Your task to perform on an android device: turn pop-ups on in chrome Image 0: 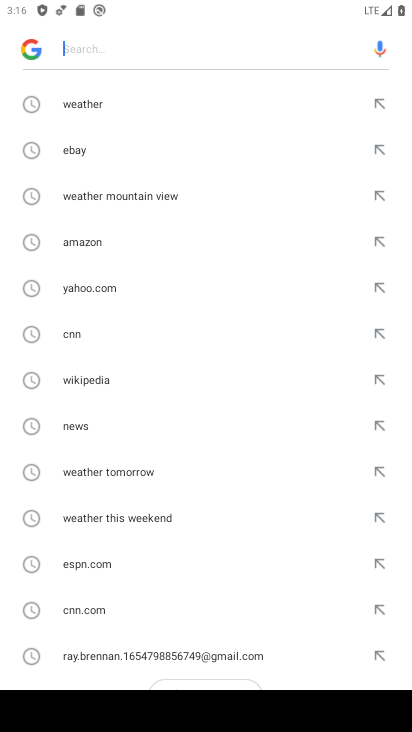
Step 0: press home button
Your task to perform on an android device: turn pop-ups on in chrome Image 1: 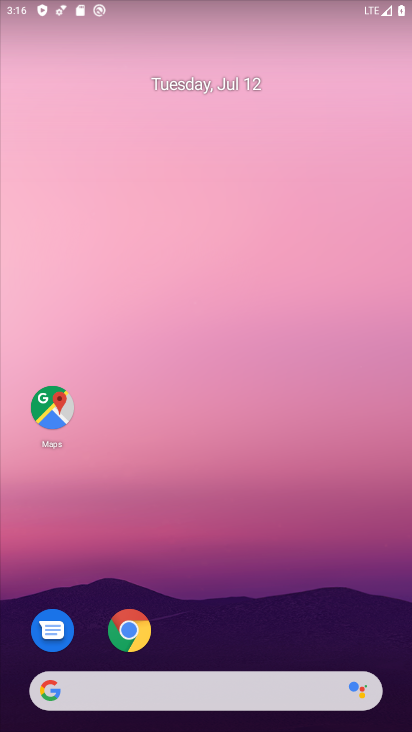
Step 1: drag from (185, 593) to (255, 8)
Your task to perform on an android device: turn pop-ups on in chrome Image 2: 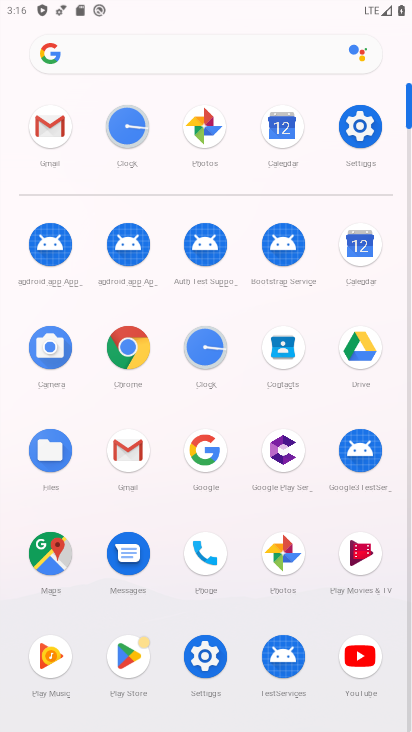
Step 2: click (122, 346)
Your task to perform on an android device: turn pop-ups on in chrome Image 3: 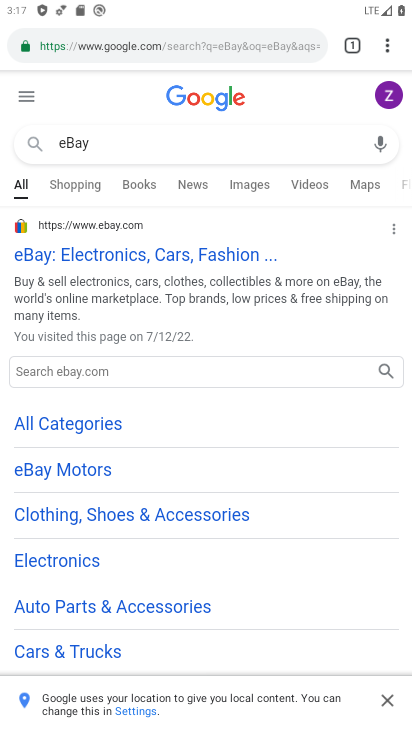
Step 3: click (389, 46)
Your task to perform on an android device: turn pop-ups on in chrome Image 4: 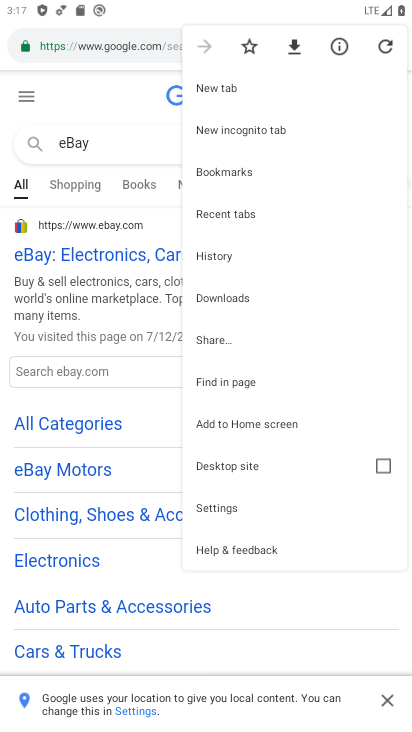
Step 4: click (220, 512)
Your task to perform on an android device: turn pop-ups on in chrome Image 5: 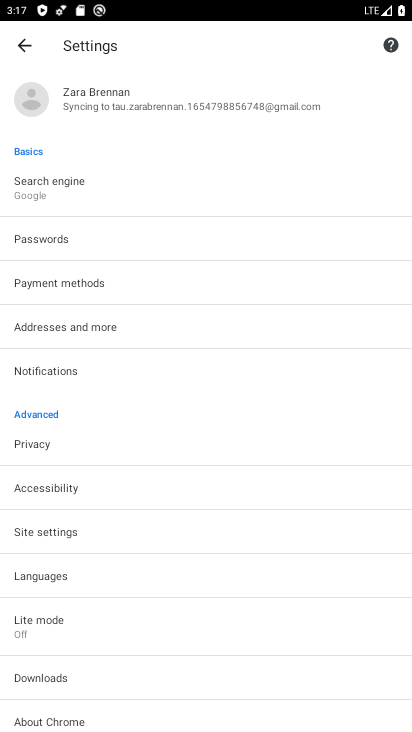
Step 5: click (65, 534)
Your task to perform on an android device: turn pop-ups on in chrome Image 6: 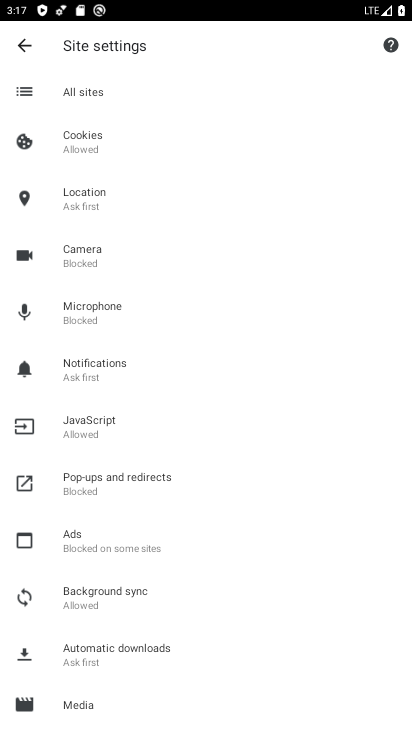
Step 6: click (117, 485)
Your task to perform on an android device: turn pop-ups on in chrome Image 7: 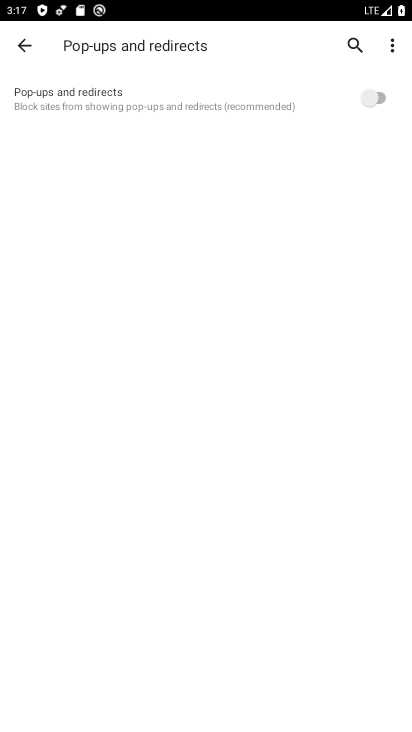
Step 7: drag from (348, 90) to (265, 195)
Your task to perform on an android device: turn pop-ups on in chrome Image 8: 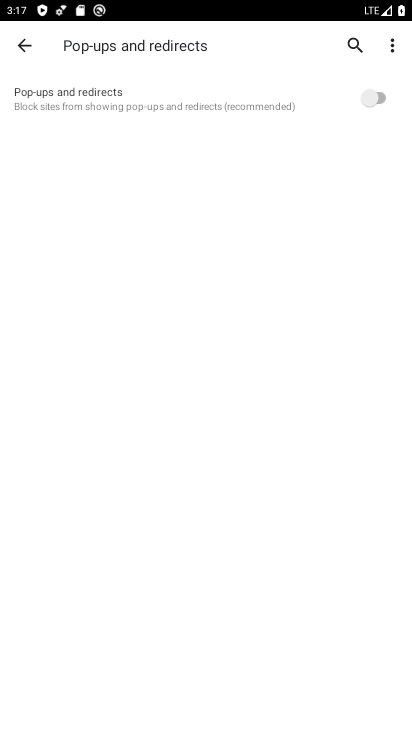
Step 8: click (356, 109)
Your task to perform on an android device: turn pop-ups on in chrome Image 9: 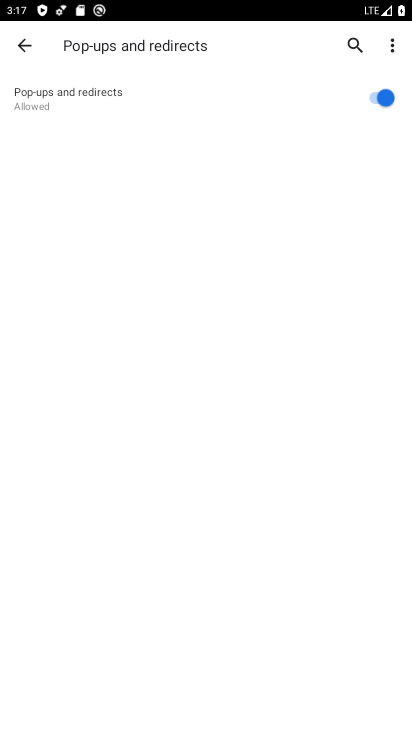
Step 9: task complete